Your task to perform on an android device: set default search engine in the chrome app Image 0: 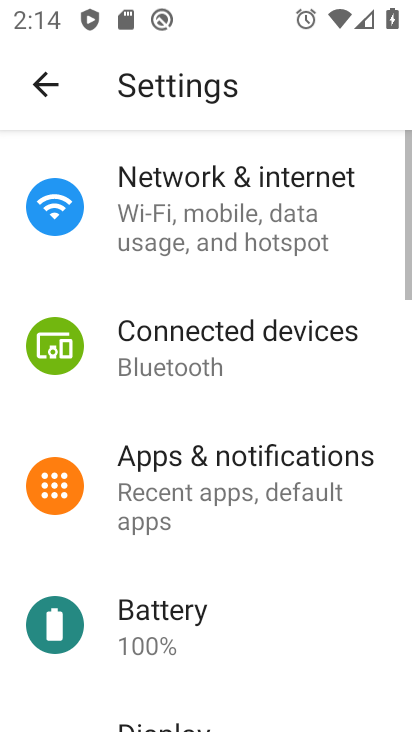
Step 0: press home button
Your task to perform on an android device: set default search engine in the chrome app Image 1: 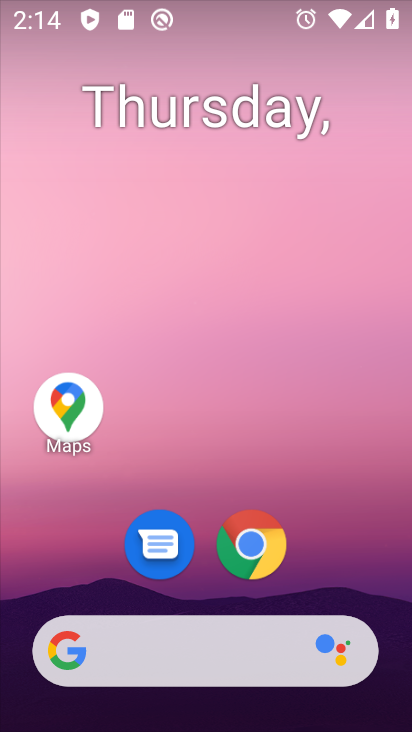
Step 1: click (361, 436)
Your task to perform on an android device: set default search engine in the chrome app Image 2: 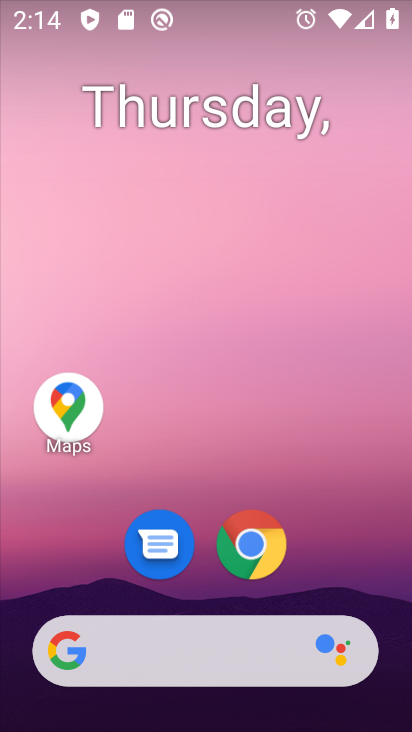
Step 2: click (260, 554)
Your task to perform on an android device: set default search engine in the chrome app Image 3: 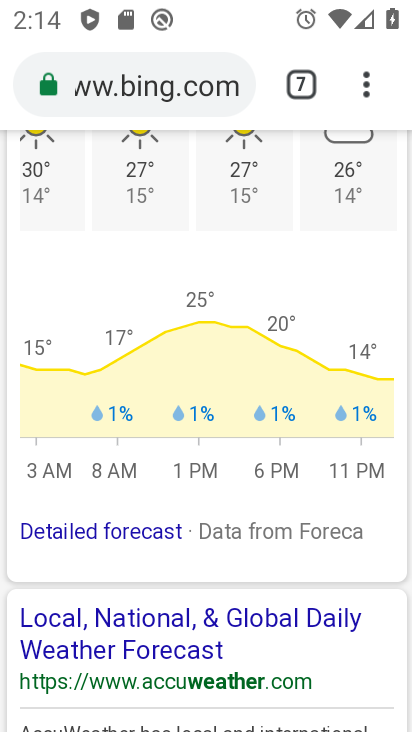
Step 3: click (354, 85)
Your task to perform on an android device: set default search engine in the chrome app Image 4: 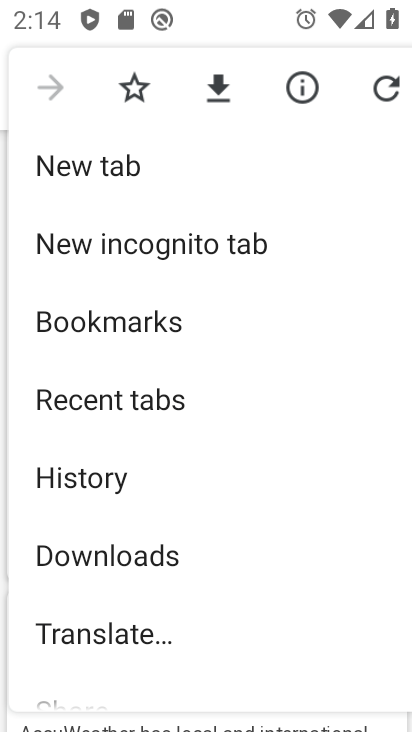
Step 4: drag from (92, 681) to (109, 278)
Your task to perform on an android device: set default search engine in the chrome app Image 5: 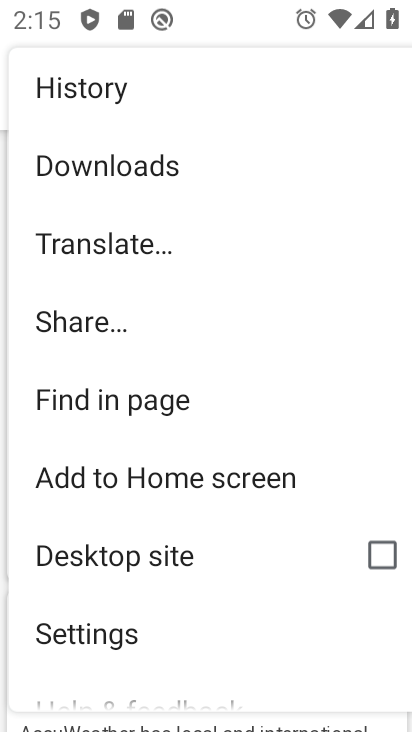
Step 5: click (107, 640)
Your task to perform on an android device: set default search engine in the chrome app Image 6: 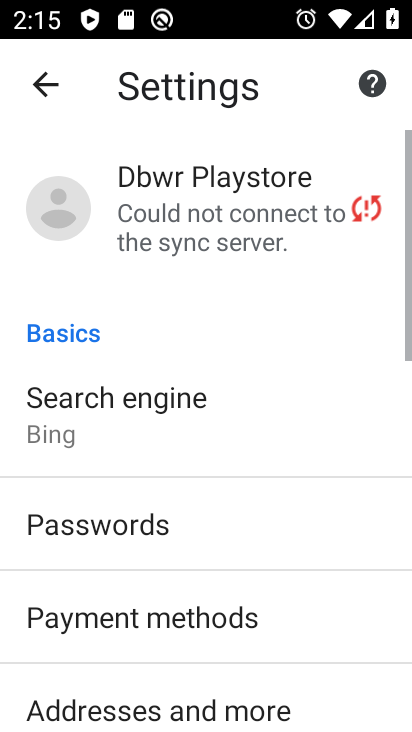
Step 6: click (89, 407)
Your task to perform on an android device: set default search engine in the chrome app Image 7: 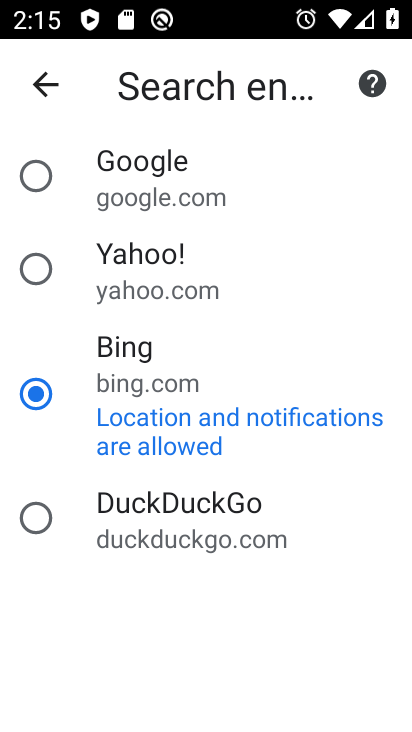
Step 7: click (124, 183)
Your task to perform on an android device: set default search engine in the chrome app Image 8: 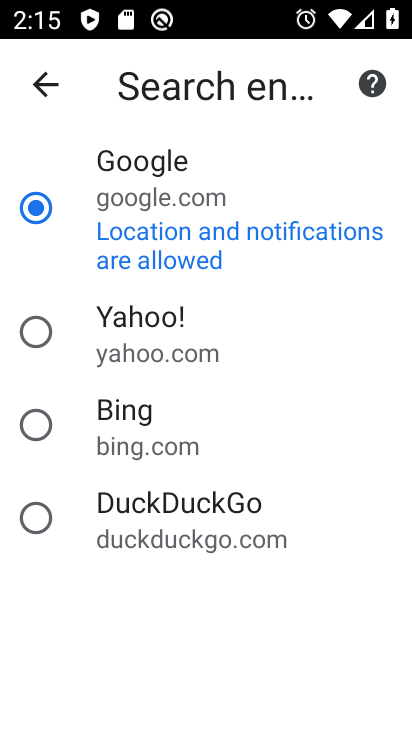
Step 8: task complete